Your task to perform on an android device: Open sound settings Image 0: 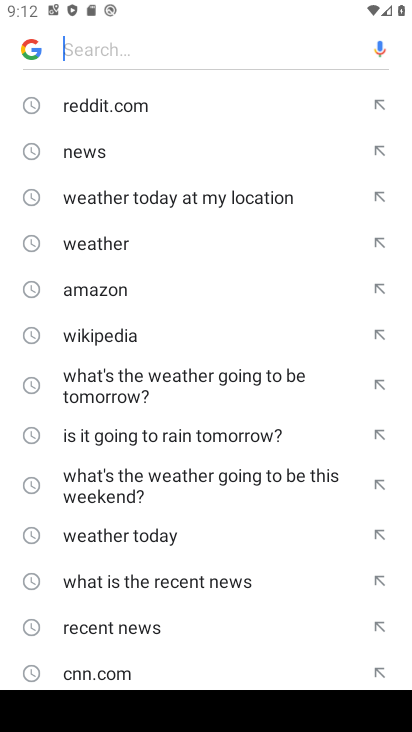
Step 0: press home button
Your task to perform on an android device: Open sound settings Image 1: 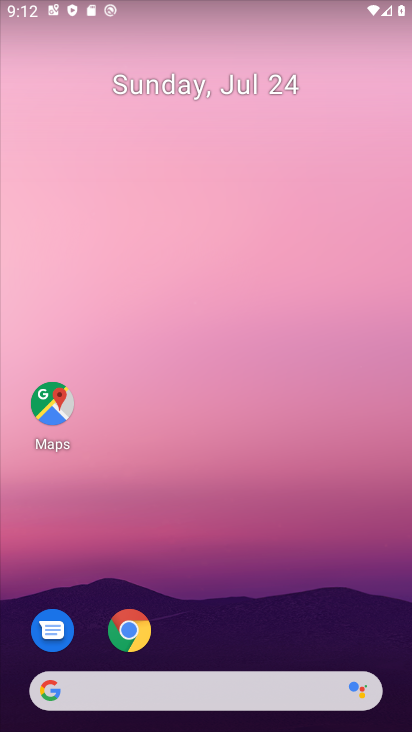
Step 1: drag from (212, 623) to (221, 119)
Your task to perform on an android device: Open sound settings Image 2: 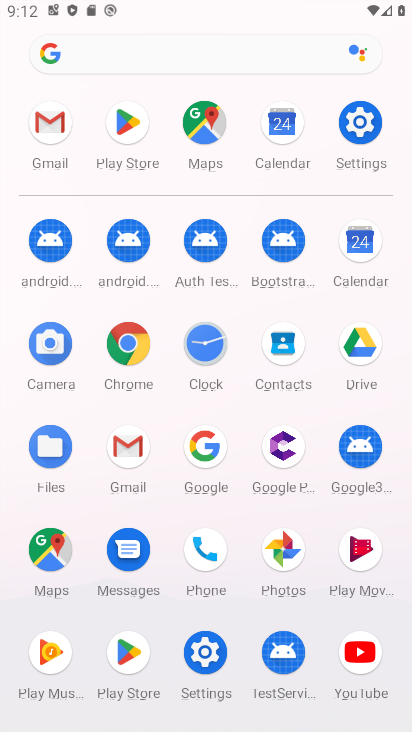
Step 2: click (344, 135)
Your task to perform on an android device: Open sound settings Image 3: 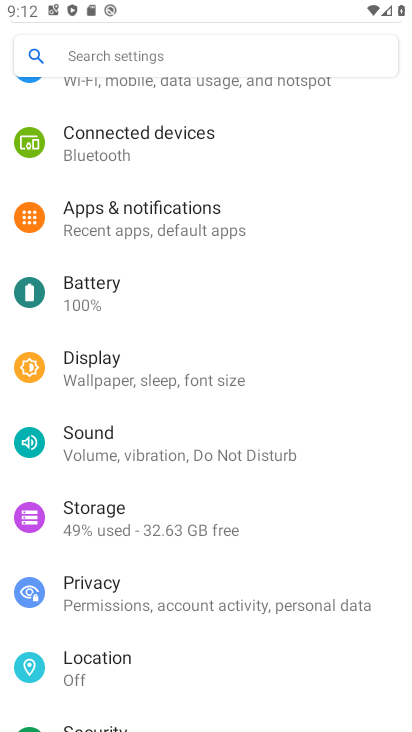
Step 3: click (162, 437)
Your task to perform on an android device: Open sound settings Image 4: 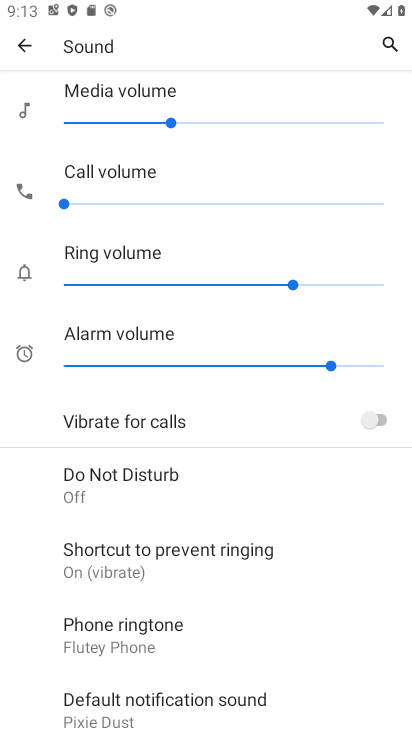
Step 4: task complete